Your task to perform on an android device: refresh tabs in the chrome app Image 0: 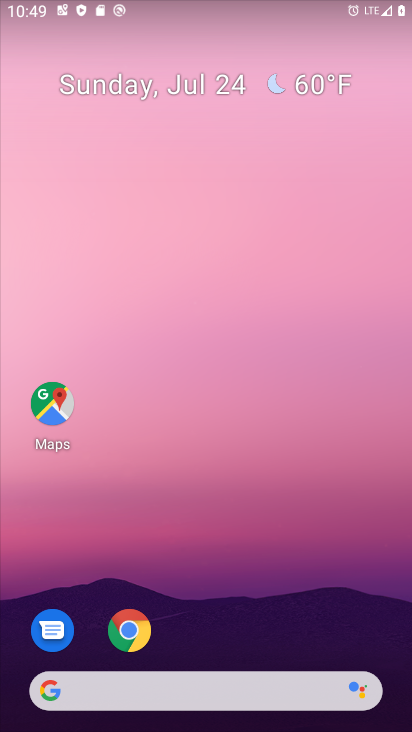
Step 0: click (142, 619)
Your task to perform on an android device: refresh tabs in the chrome app Image 1: 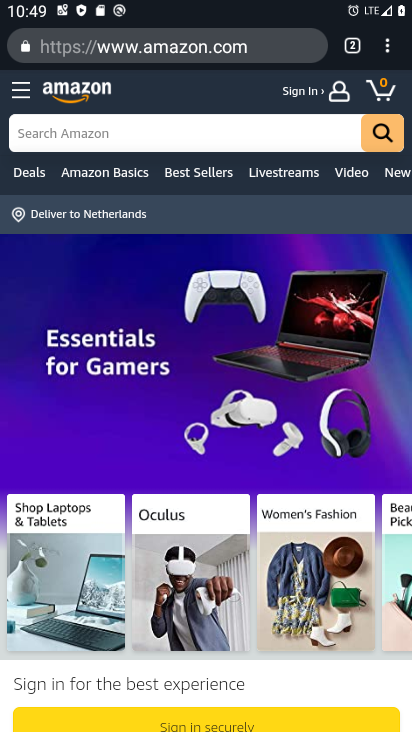
Step 1: click (380, 51)
Your task to perform on an android device: refresh tabs in the chrome app Image 2: 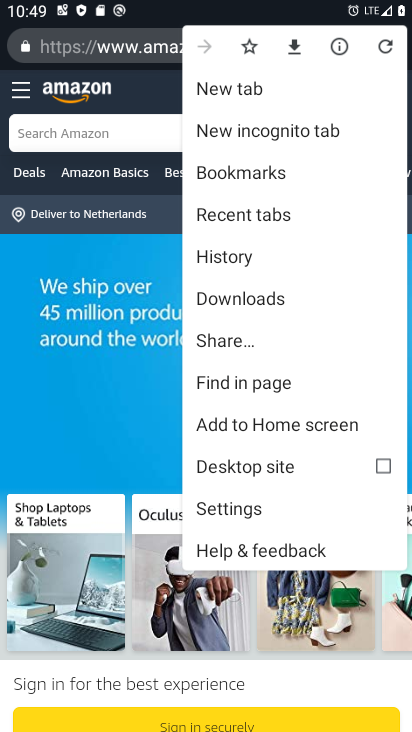
Step 2: click (383, 42)
Your task to perform on an android device: refresh tabs in the chrome app Image 3: 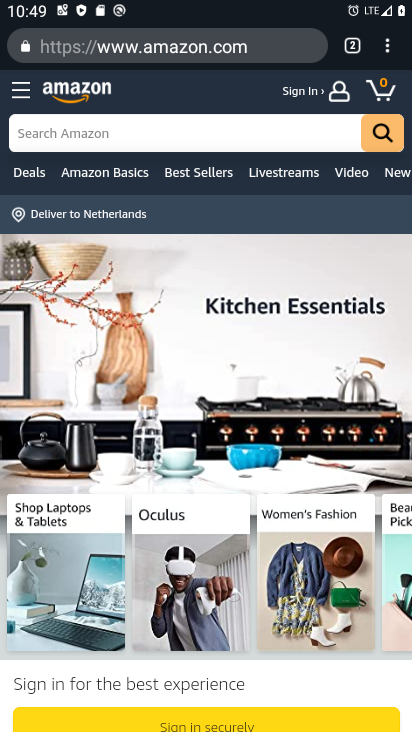
Step 3: task complete